Your task to perform on an android device: Open Maps and search for coffee Image 0: 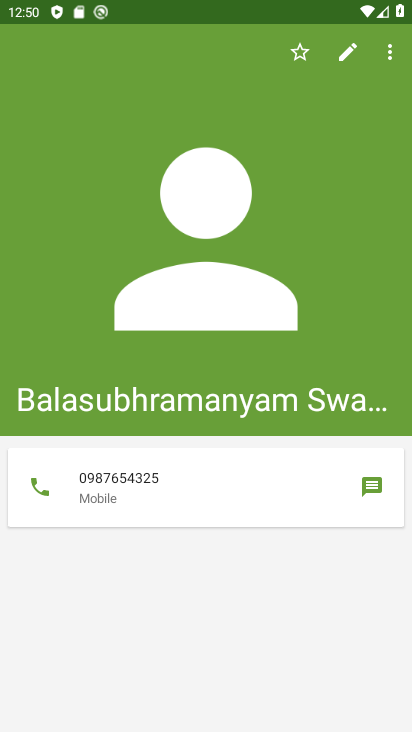
Step 0: press back button
Your task to perform on an android device: Open Maps and search for coffee Image 1: 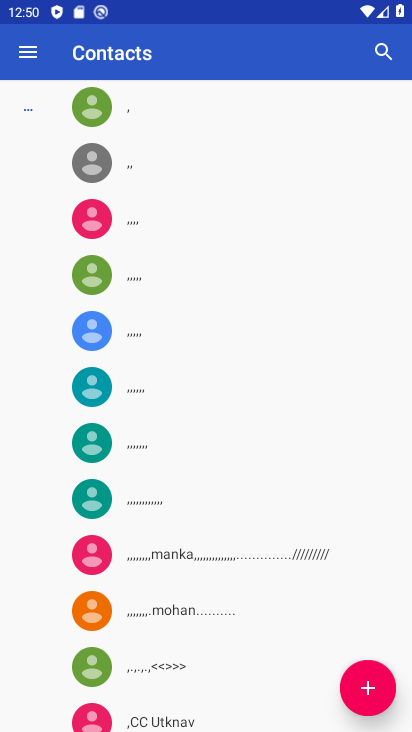
Step 1: press back button
Your task to perform on an android device: Open Maps and search for coffee Image 2: 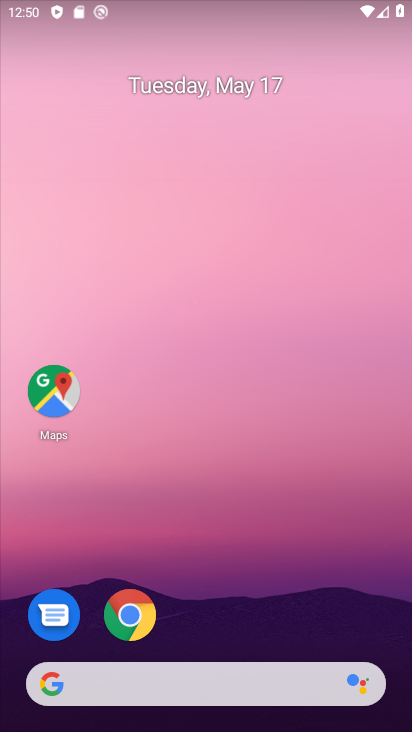
Step 2: click (52, 391)
Your task to perform on an android device: Open Maps and search for coffee Image 3: 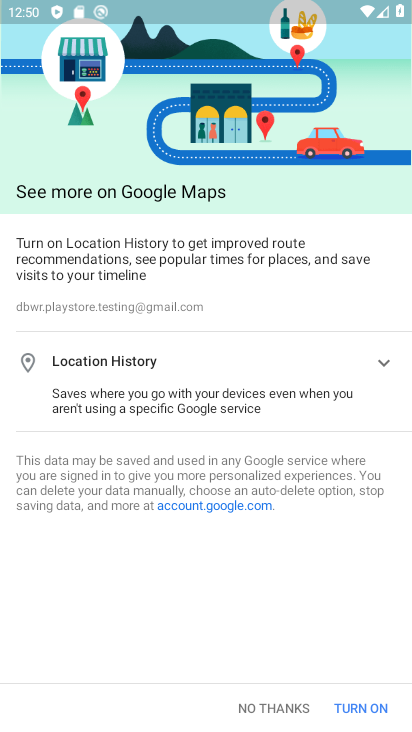
Step 3: click (291, 708)
Your task to perform on an android device: Open Maps and search for coffee Image 4: 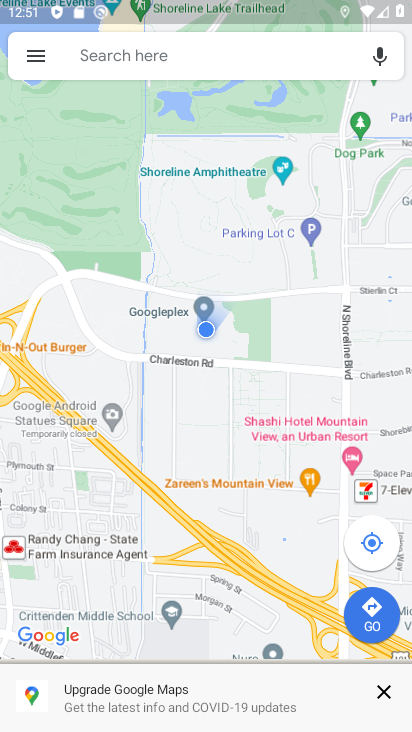
Step 4: click (200, 60)
Your task to perform on an android device: Open Maps and search for coffee Image 5: 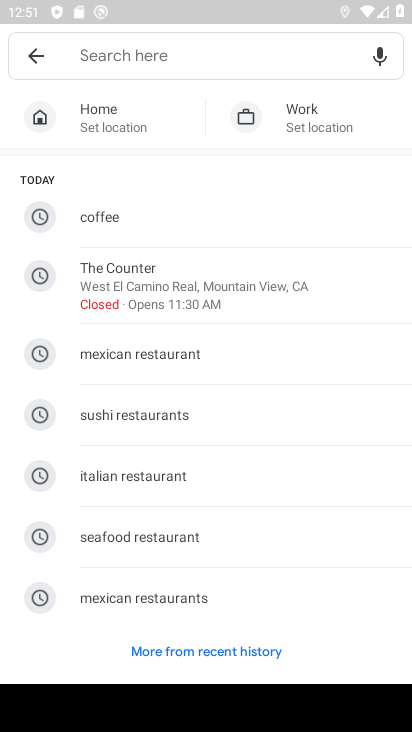
Step 5: type "coffee"
Your task to perform on an android device: Open Maps and search for coffee Image 6: 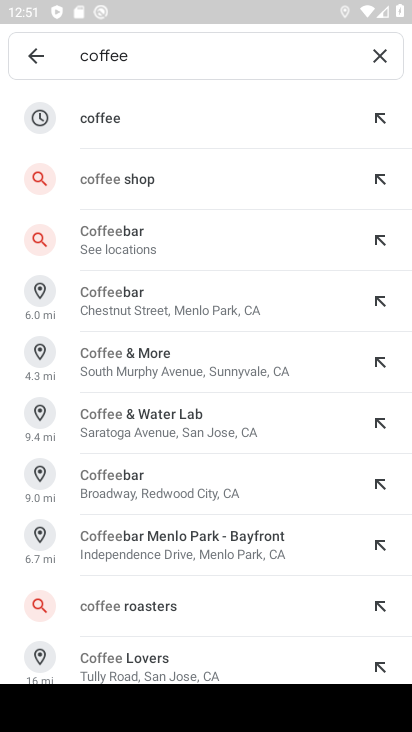
Step 6: click (89, 114)
Your task to perform on an android device: Open Maps and search for coffee Image 7: 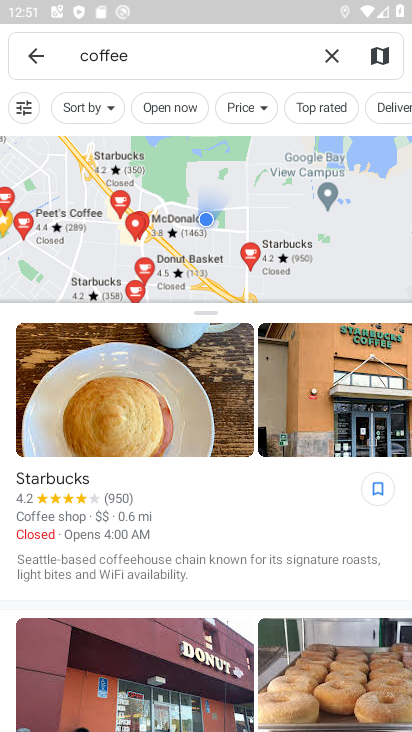
Step 7: task complete